Your task to perform on an android device: turn on notifications settings in the gmail app Image 0: 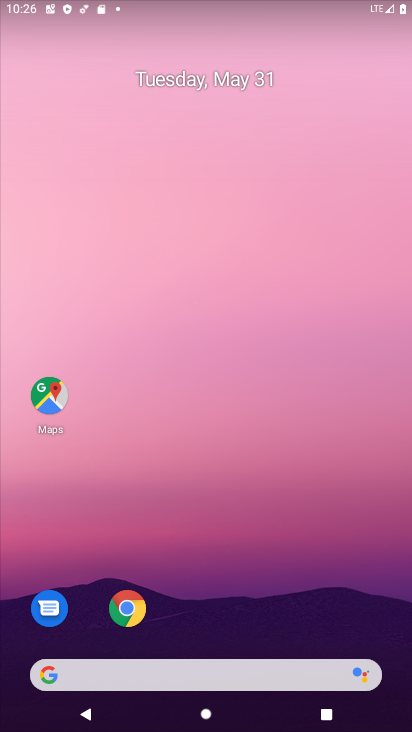
Step 0: drag from (222, 636) to (174, 48)
Your task to perform on an android device: turn on notifications settings in the gmail app Image 1: 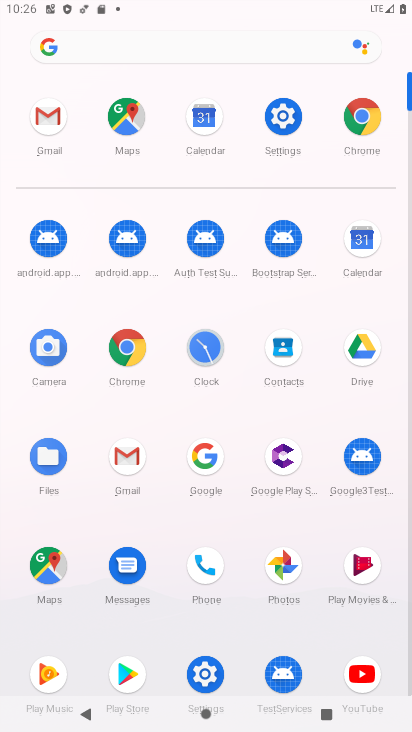
Step 1: click (118, 469)
Your task to perform on an android device: turn on notifications settings in the gmail app Image 2: 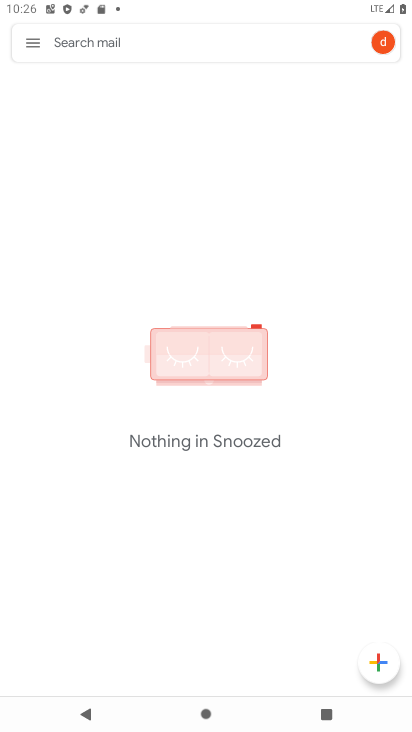
Step 2: click (29, 53)
Your task to perform on an android device: turn on notifications settings in the gmail app Image 3: 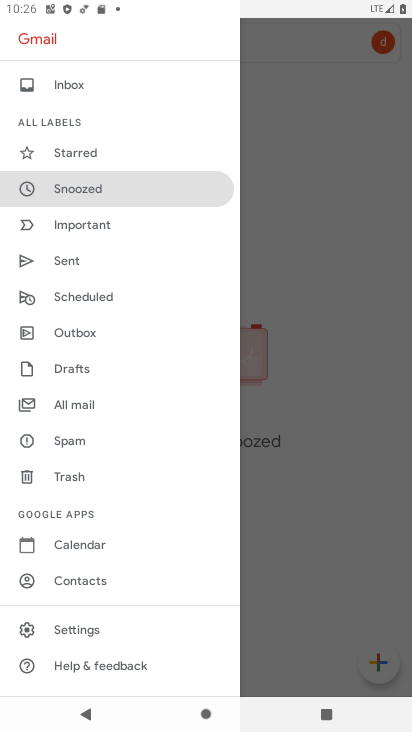
Step 3: click (93, 618)
Your task to perform on an android device: turn on notifications settings in the gmail app Image 4: 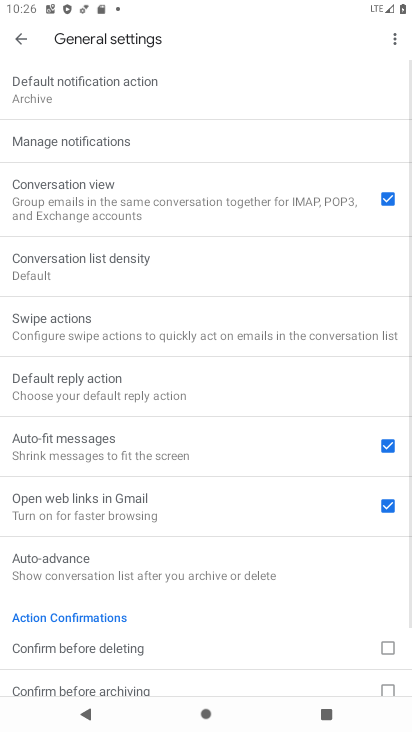
Step 4: click (57, 154)
Your task to perform on an android device: turn on notifications settings in the gmail app Image 5: 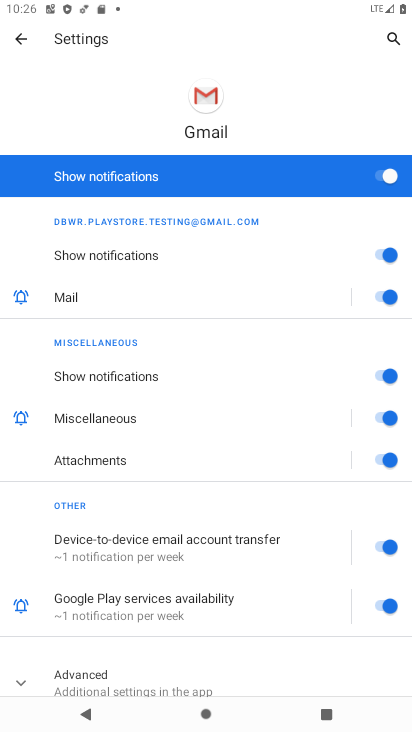
Step 5: task complete